Your task to perform on an android device: Go to Google Image 0: 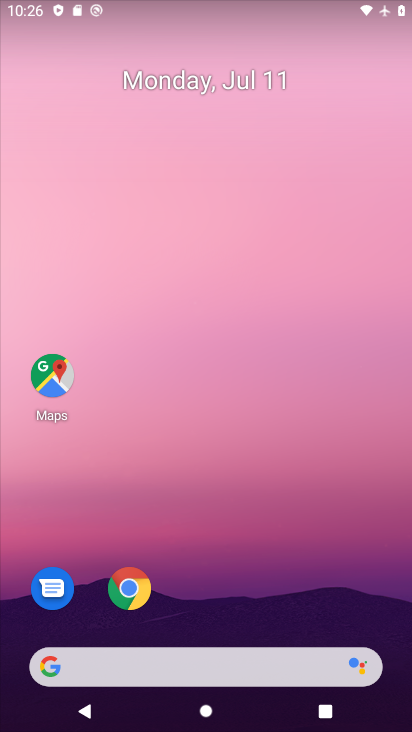
Step 0: press home button
Your task to perform on an android device: Go to Google Image 1: 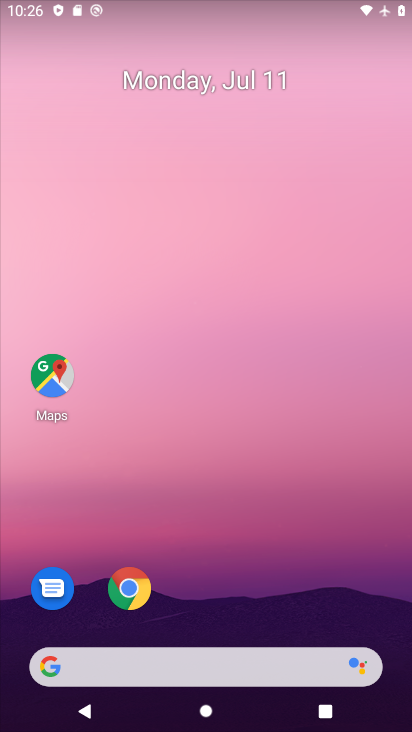
Step 1: drag from (174, 656) to (342, 59)
Your task to perform on an android device: Go to Google Image 2: 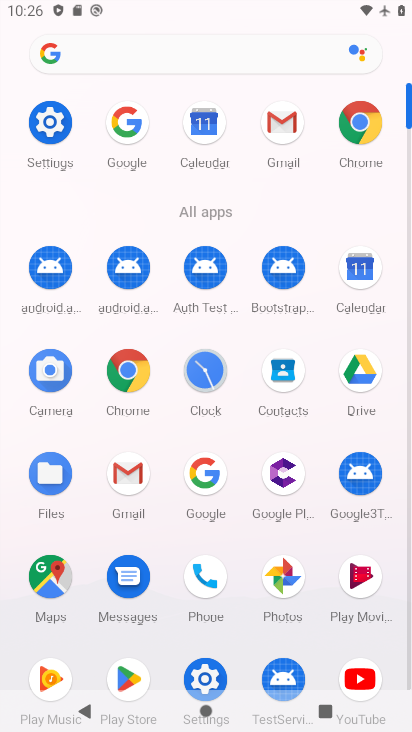
Step 2: click (127, 129)
Your task to perform on an android device: Go to Google Image 3: 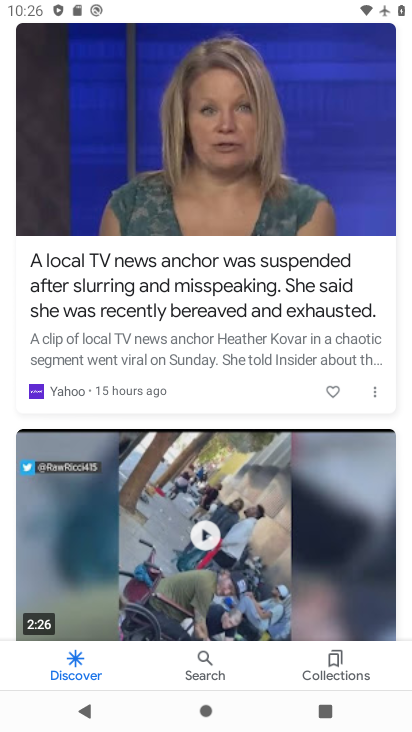
Step 3: task complete